Your task to perform on an android device: snooze an email in the gmail app Image 0: 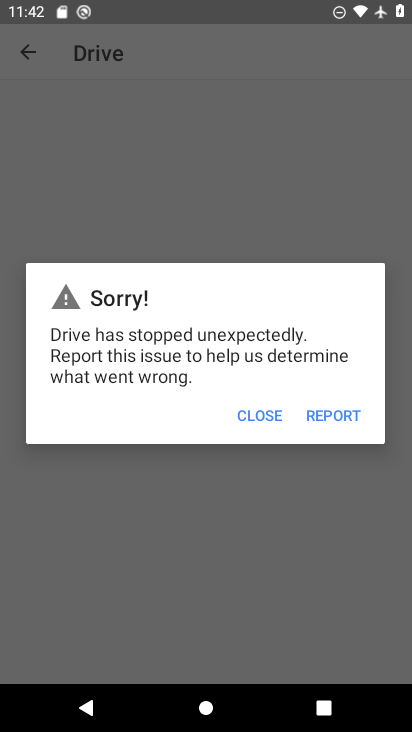
Step 0: press home button
Your task to perform on an android device: snooze an email in the gmail app Image 1: 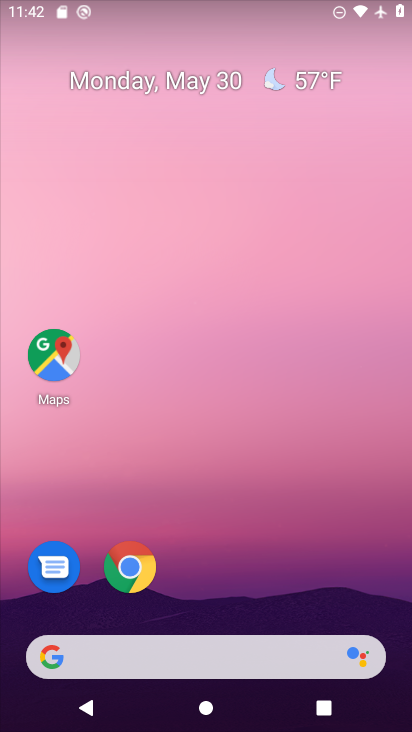
Step 1: drag from (251, 579) to (251, 210)
Your task to perform on an android device: snooze an email in the gmail app Image 2: 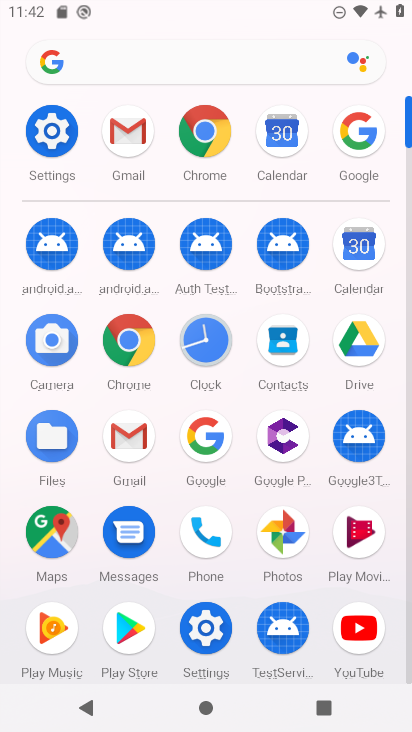
Step 2: click (142, 133)
Your task to perform on an android device: snooze an email in the gmail app Image 3: 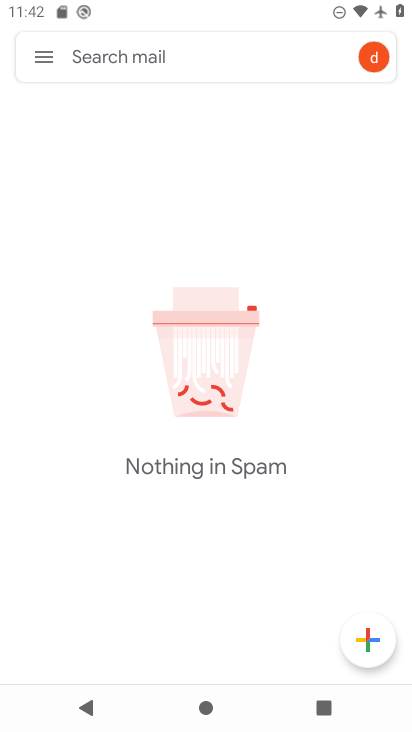
Step 3: click (38, 55)
Your task to perform on an android device: snooze an email in the gmail app Image 4: 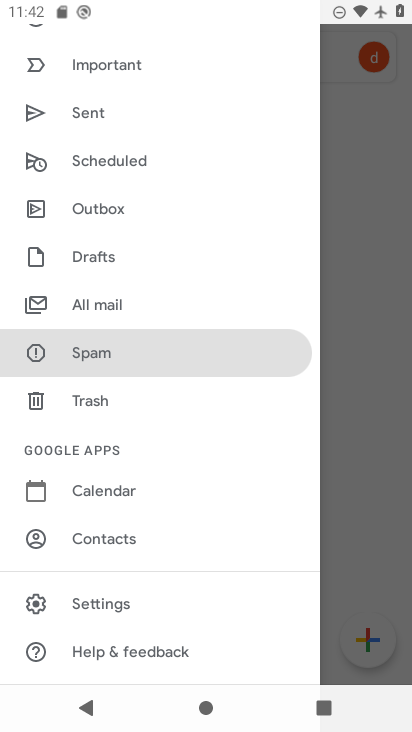
Step 4: click (104, 303)
Your task to perform on an android device: snooze an email in the gmail app Image 5: 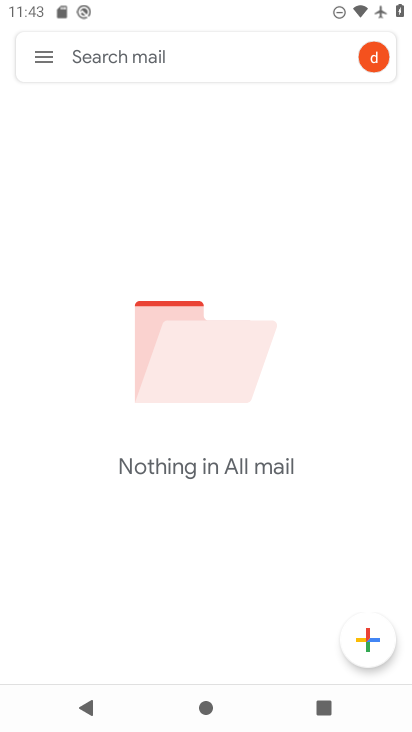
Step 5: task complete